Your task to perform on an android device: turn smart compose on in the gmail app Image 0: 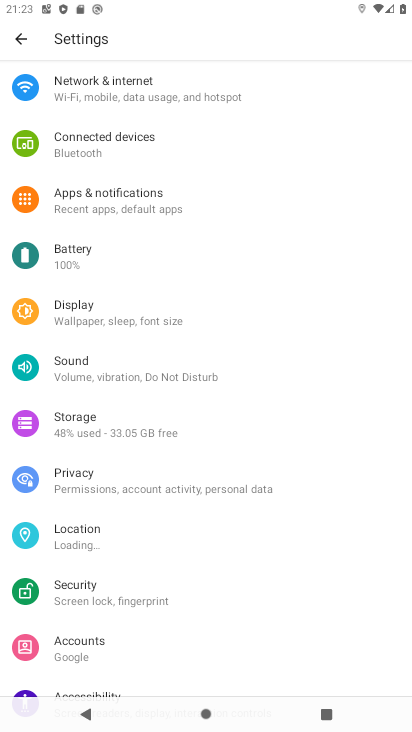
Step 0: press home button
Your task to perform on an android device: turn smart compose on in the gmail app Image 1: 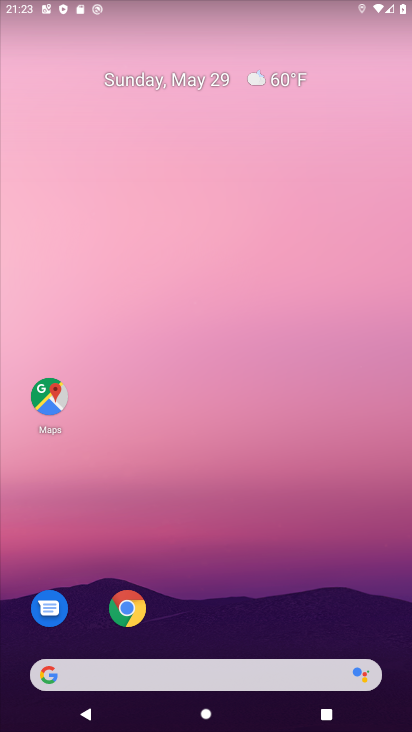
Step 1: drag from (368, 606) to (353, 273)
Your task to perform on an android device: turn smart compose on in the gmail app Image 2: 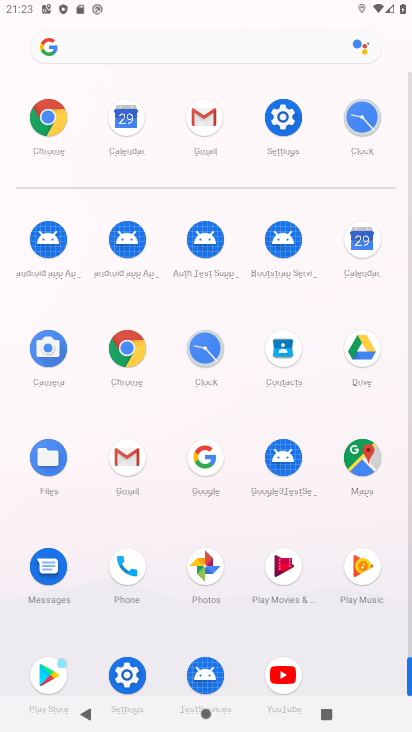
Step 2: click (211, 141)
Your task to perform on an android device: turn smart compose on in the gmail app Image 3: 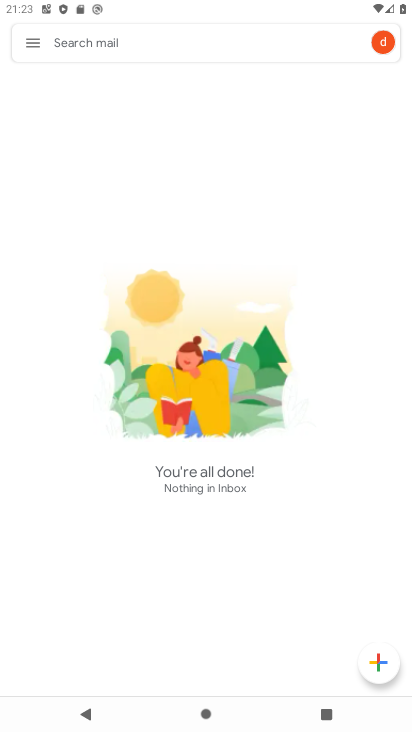
Step 3: click (34, 46)
Your task to perform on an android device: turn smart compose on in the gmail app Image 4: 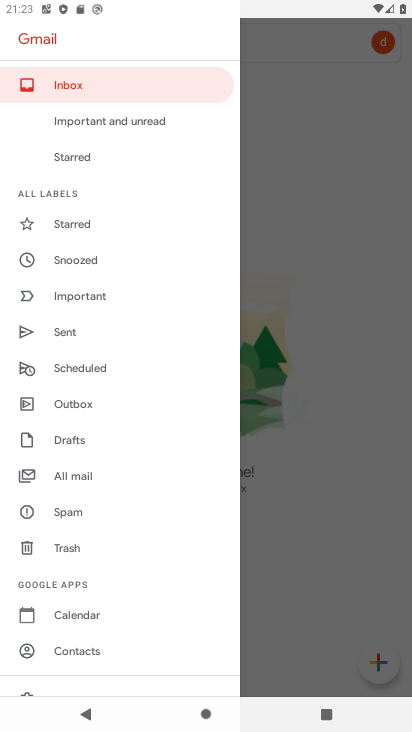
Step 4: drag from (182, 556) to (180, 446)
Your task to perform on an android device: turn smart compose on in the gmail app Image 5: 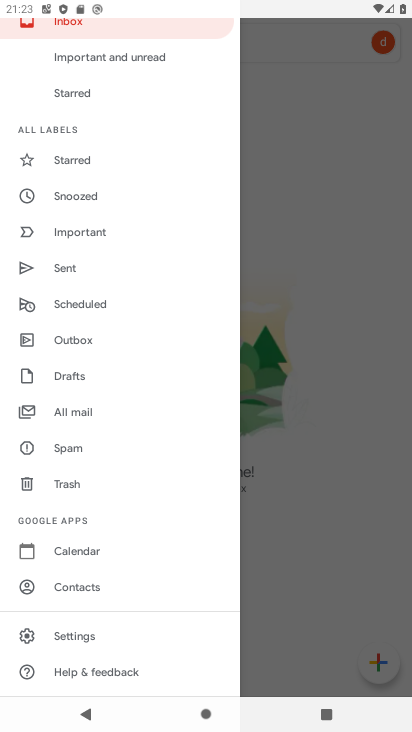
Step 5: click (121, 629)
Your task to perform on an android device: turn smart compose on in the gmail app Image 6: 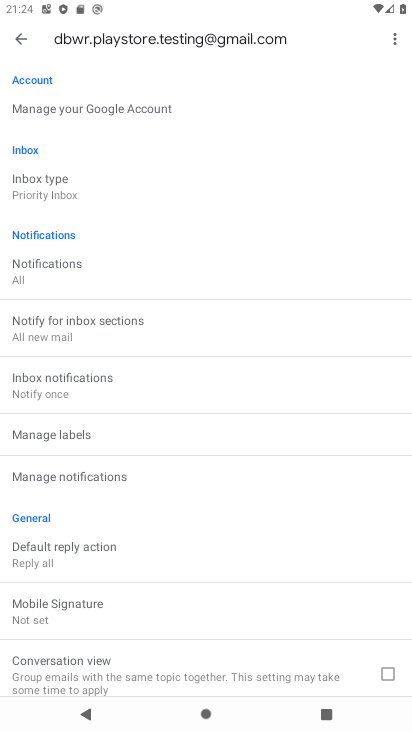
Step 6: task complete